Your task to perform on an android device: Open network settings Image 0: 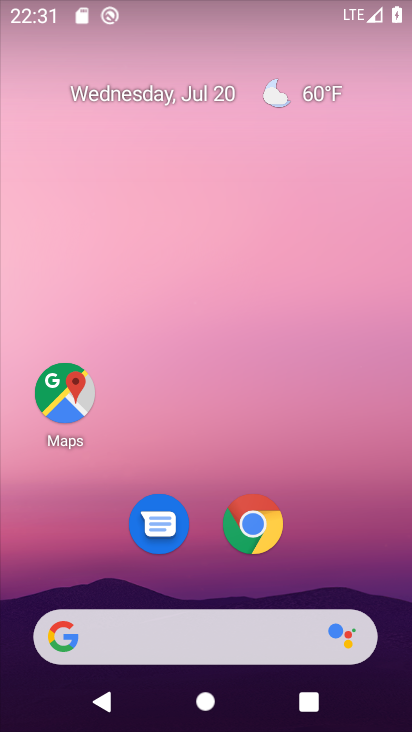
Step 0: drag from (323, 544) to (302, 57)
Your task to perform on an android device: Open network settings Image 1: 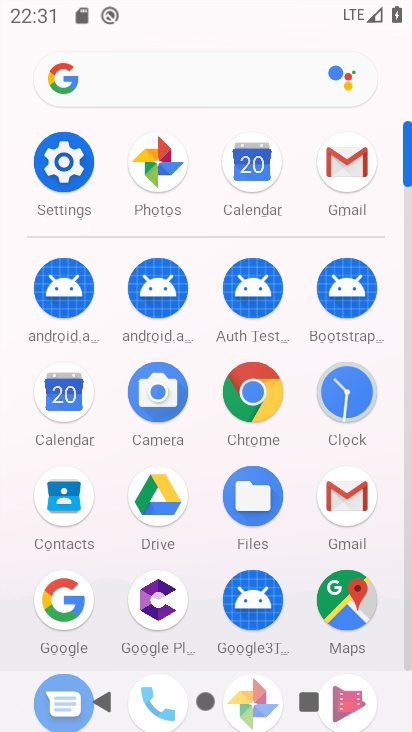
Step 1: click (74, 153)
Your task to perform on an android device: Open network settings Image 2: 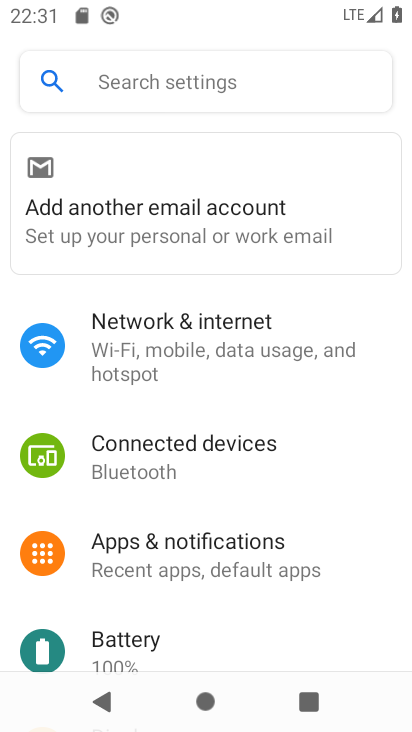
Step 2: click (189, 340)
Your task to perform on an android device: Open network settings Image 3: 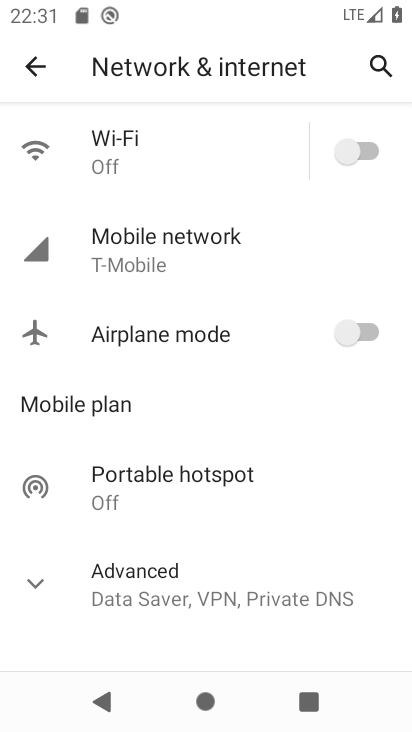
Step 3: task complete